Your task to perform on an android device: Open Maps and search for coffee Image 0: 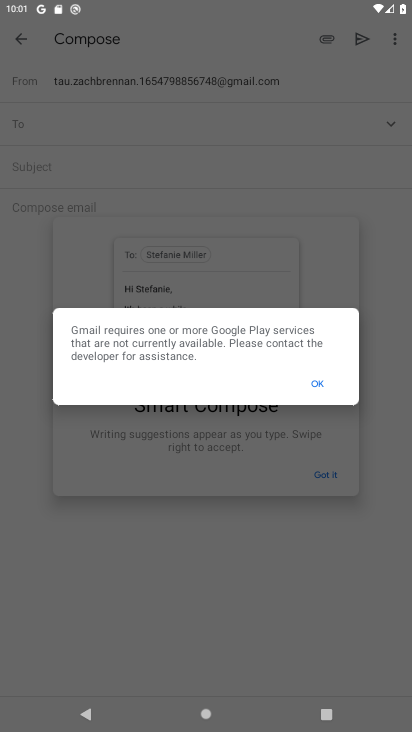
Step 0: press home button
Your task to perform on an android device: Open Maps and search for coffee Image 1: 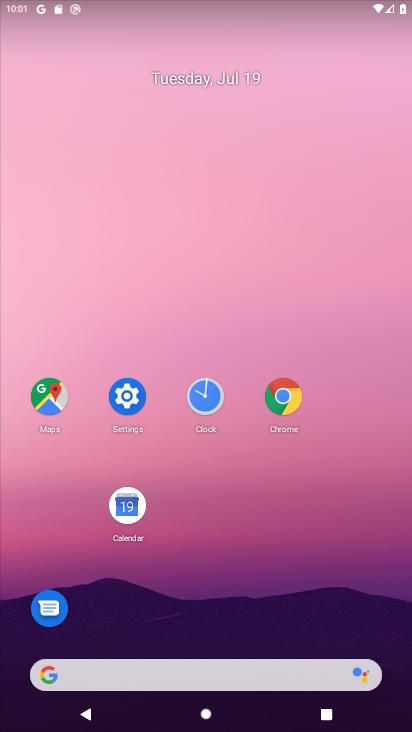
Step 1: click (40, 404)
Your task to perform on an android device: Open Maps and search for coffee Image 2: 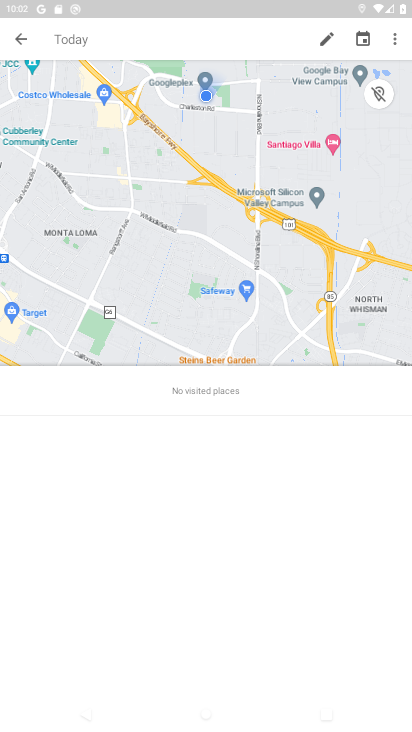
Step 2: click (90, 35)
Your task to perform on an android device: Open Maps and search for coffee Image 3: 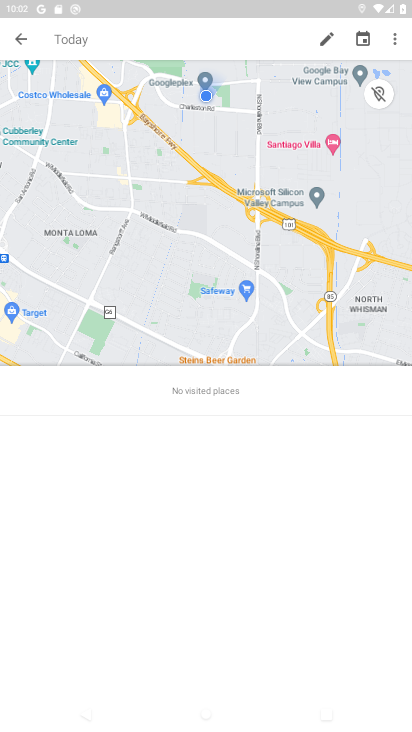
Step 3: click (154, 35)
Your task to perform on an android device: Open Maps and search for coffee Image 4: 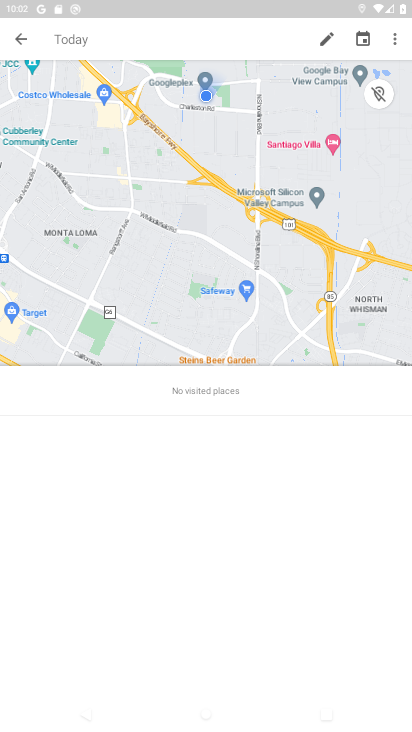
Step 4: click (20, 36)
Your task to perform on an android device: Open Maps and search for coffee Image 5: 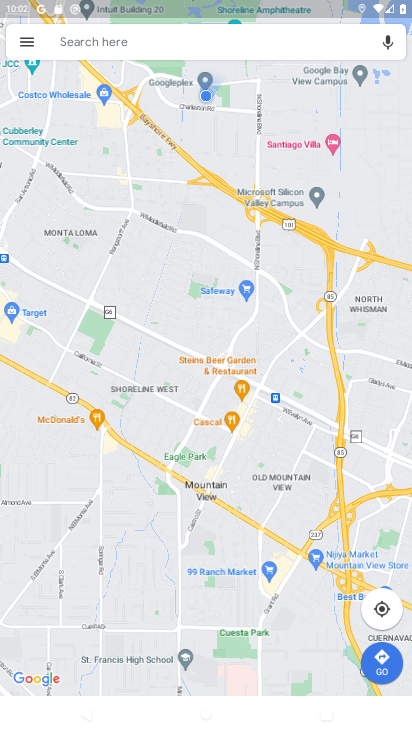
Step 5: click (63, 43)
Your task to perform on an android device: Open Maps and search for coffee Image 6: 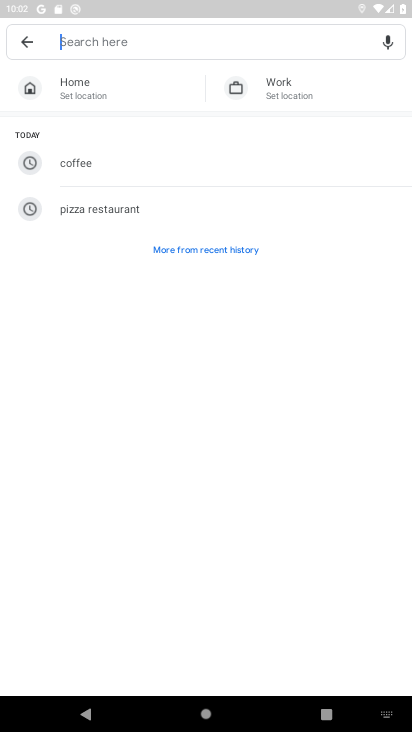
Step 6: type " coffee"
Your task to perform on an android device: Open Maps and search for coffee Image 7: 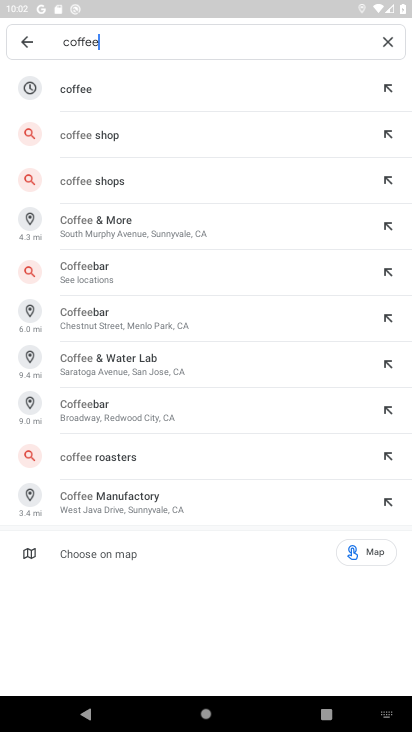
Step 7: click (83, 81)
Your task to perform on an android device: Open Maps and search for coffee Image 8: 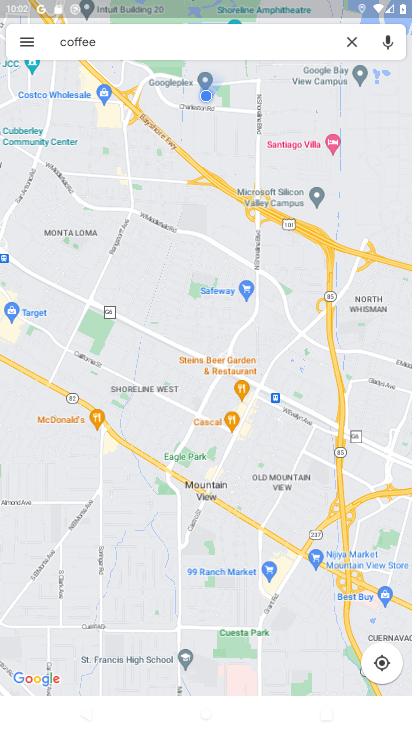
Step 8: task complete